Your task to perform on an android device: turn notification dots off Image 0: 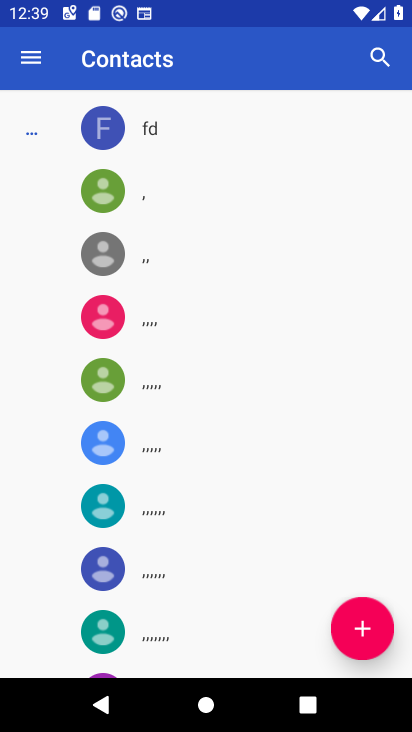
Step 0: press home button
Your task to perform on an android device: turn notification dots off Image 1: 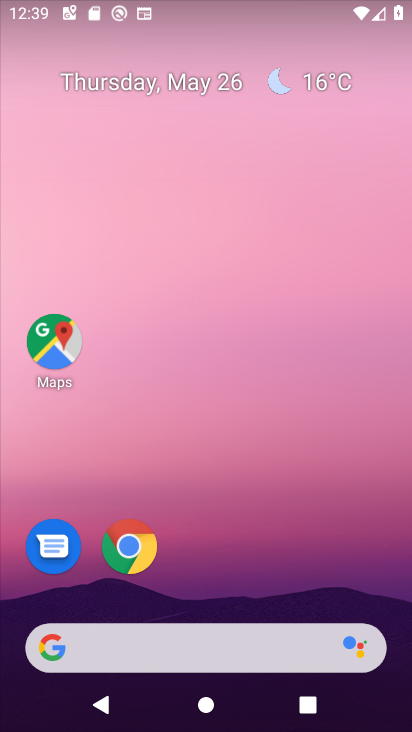
Step 1: drag from (233, 579) to (237, 238)
Your task to perform on an android device: turn notification dots off Image 2: 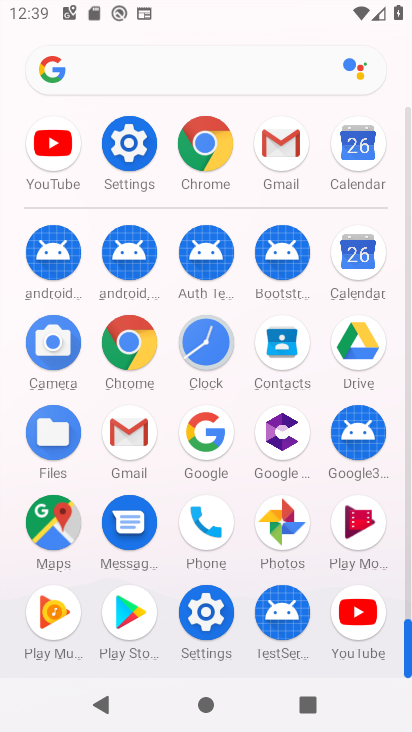
Step 2: click (127, 150)
Your task to perform on an android device: turn notification dots off Image 3: 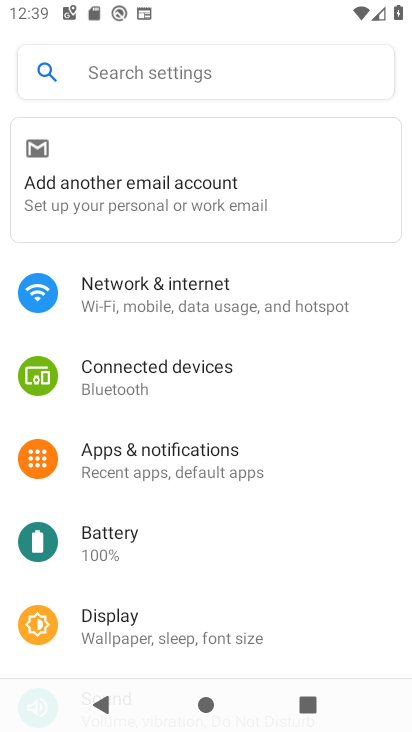
Step 3: click (156, 219)
Your task to perform on an android device: turn notification dots off Image 4: 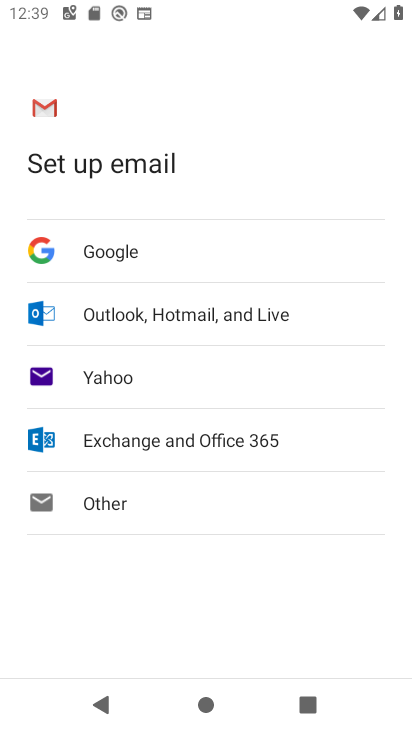
Step 4: click (175, 467)
Your task to perform on an android device: turn notification dots off Image 5: 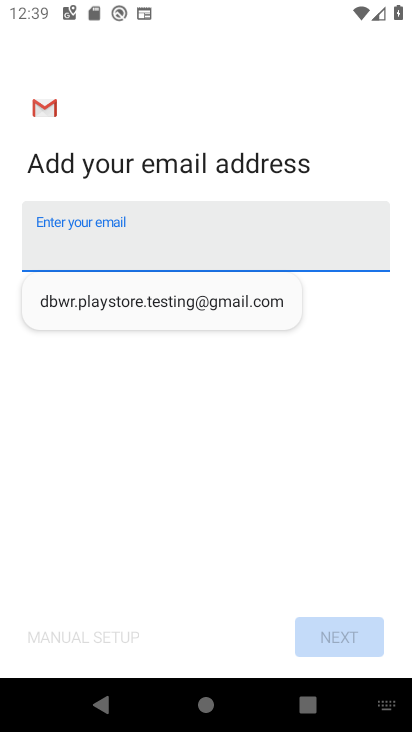
Step 5: click (174, 467)
Your task to perform on an android device: turn notification dots off Image 6: 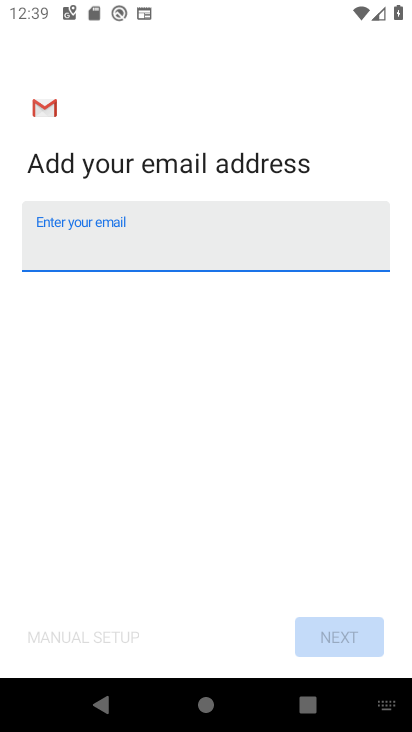
Step 6: press home button
Your task to perform on an android device: turn notification dots off Image 7: 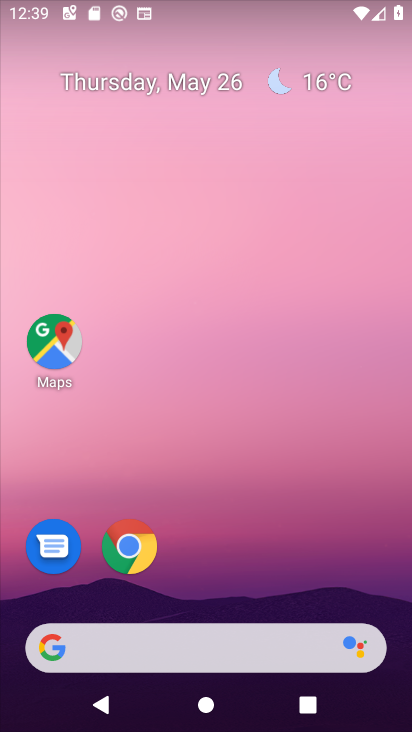
Step 7: drag from (204, 552) to (256, 186)
Your task to perform on an android device: turn notification dots off Image 8: 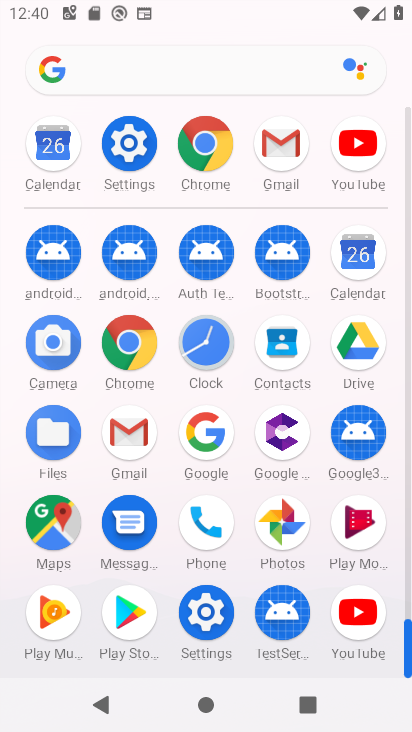
Step 8: click (134, 197)
Your task to perform on an android device: turn notification dots off Image 9: 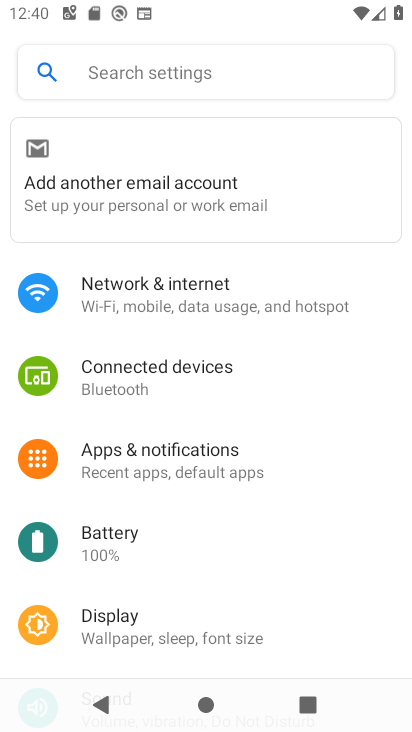
Step 9: click (158, 457)
Your task to perform on an android device: turn notification dots off Image 10: 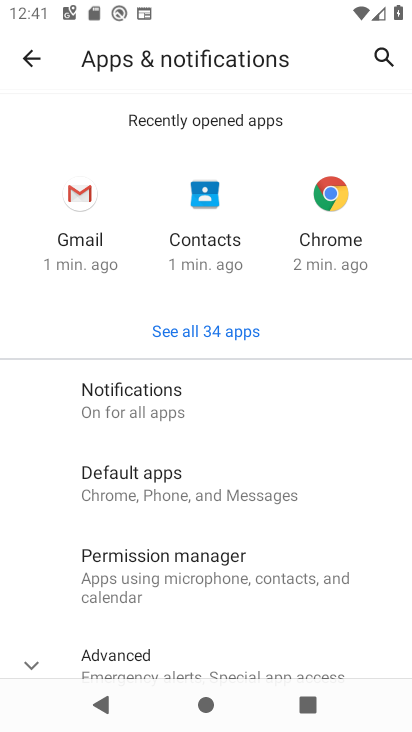
Step 10: click (209, 413)
Your task to perform on an android device: turn notification dots off Image 11: 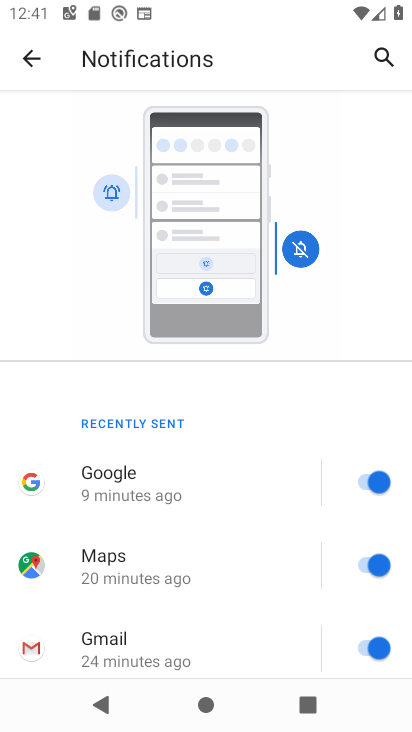
Step 11: drag from (166, 557) to (233, 220)
Your task to perform on an android device: turn notification dots off Image 12: 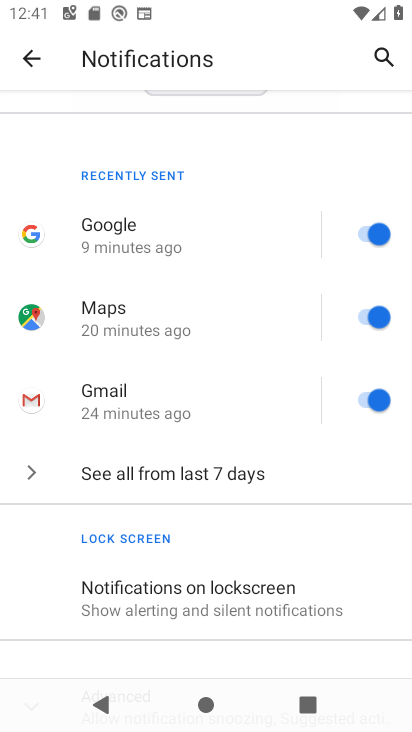
Step 12: drag from (171, 589) to (218, 309)
Your task to perform on an android device: turn notification dots off Image 13: 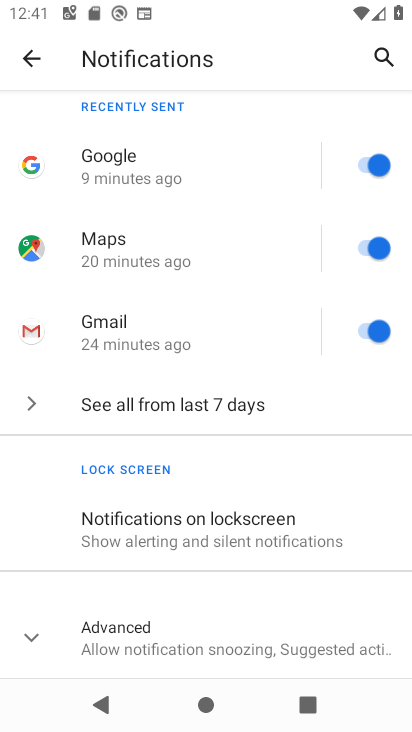
Step 13: click (17, 635)
Your task to perform on an android device: turn notification dots off Image 14: 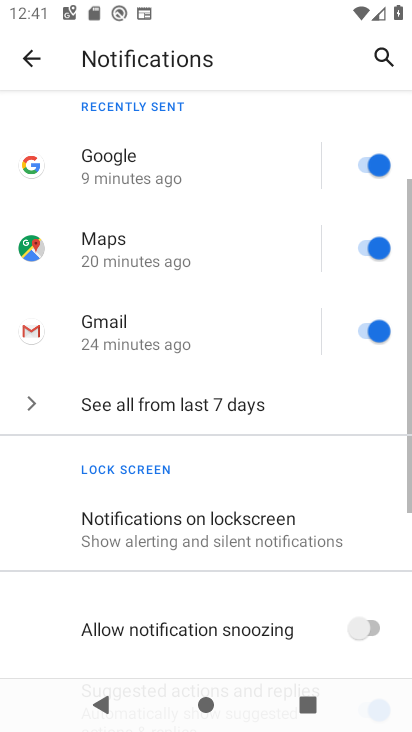
Step 14: task complete